Your task to perform on an android device: turn off improve location accuracy Image 0: 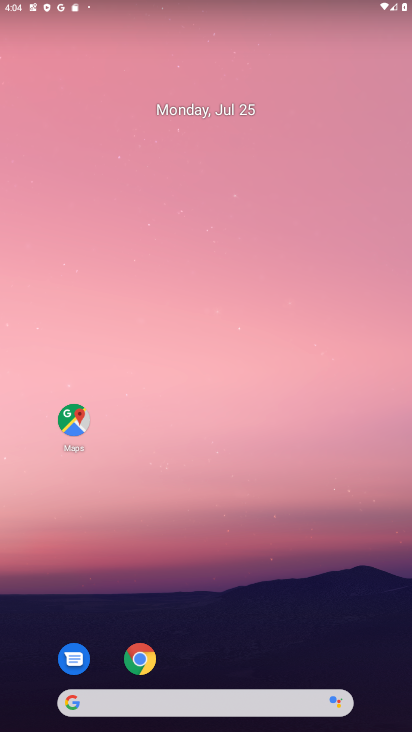
Step 0: drag from (382, 660) to (314, 103)
Your task to perform on an android device: turn off improve location accuracy Image 1: 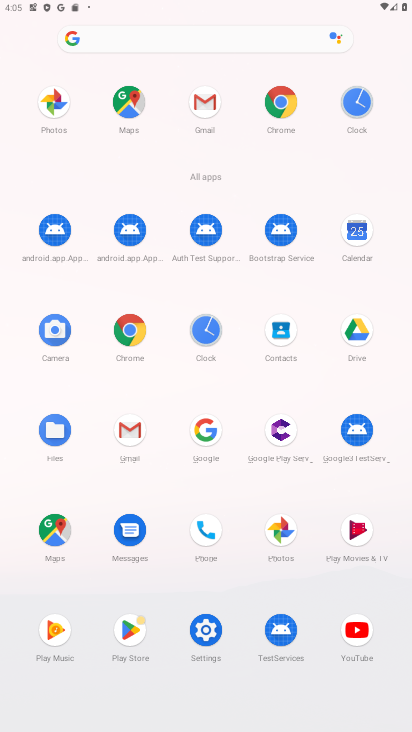
Step 1: click (207, 632)
Your task to perform on an android device: turn off improve location accuracy Image 2: 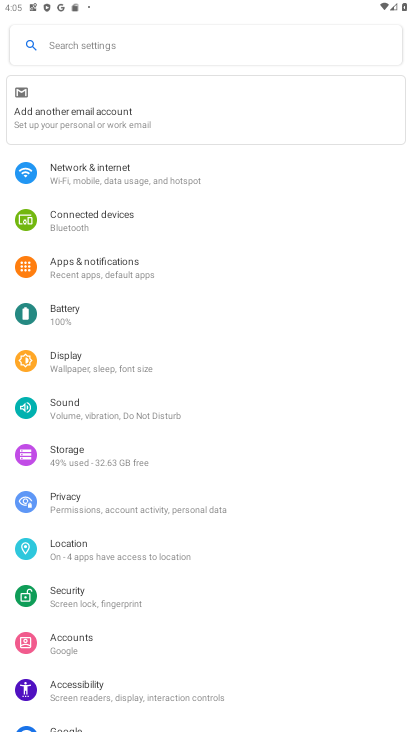
Step 2: click (81, 544)
Your task to perform on an android device: turn off improve location accuracy Image 3: 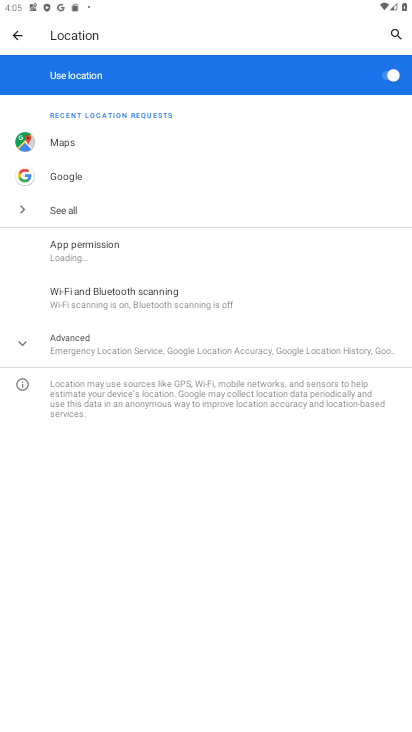
Step 3: click (20, 341)
Your task to perform on an android device: turn off improve location accuracy Image 4: 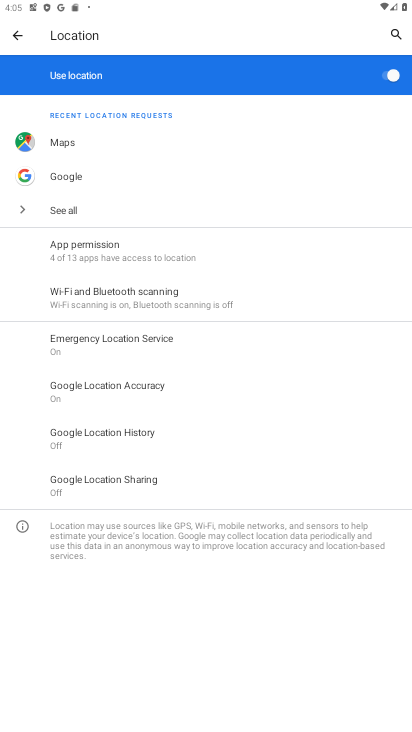
Step 4: click (106, 385)
Your task to perform on an android device: turn off improve location accuracy Image 5: 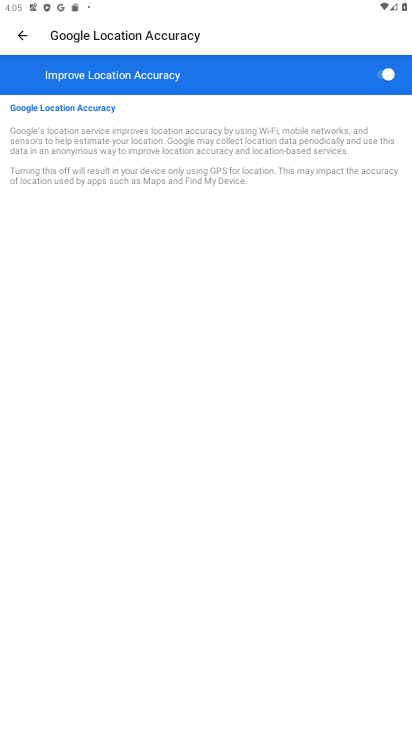
Step 5: click (377, 75)
Your task to perform on an android device: turn off improve location accuracy Image 6: 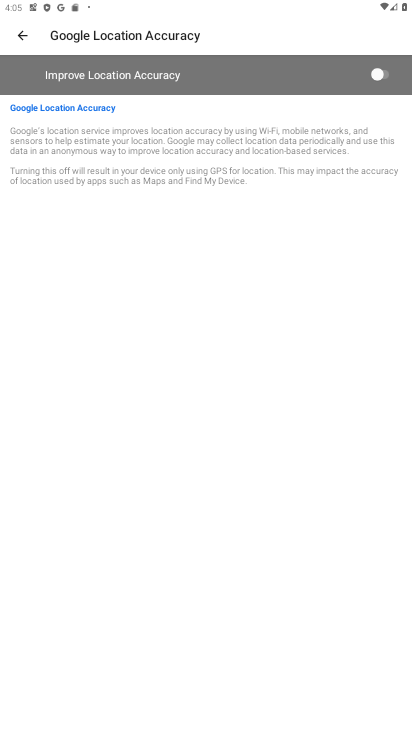
Step 6: task complete